Your task to perform on an android device: Go to Google maps Image 0: 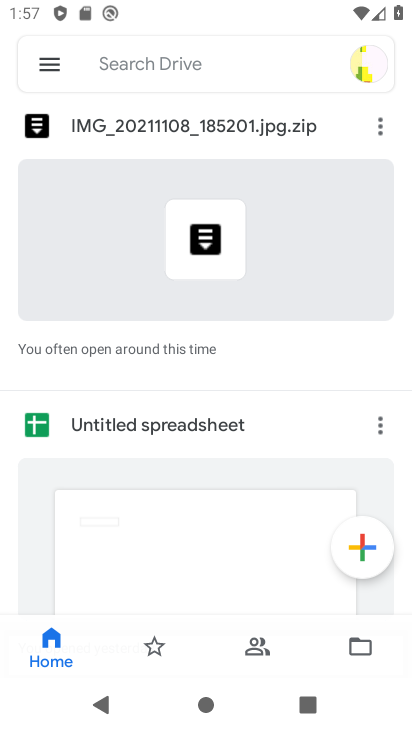
Step 0: press home button
Your task to perform on an android device: Go to Google maps Image 1: 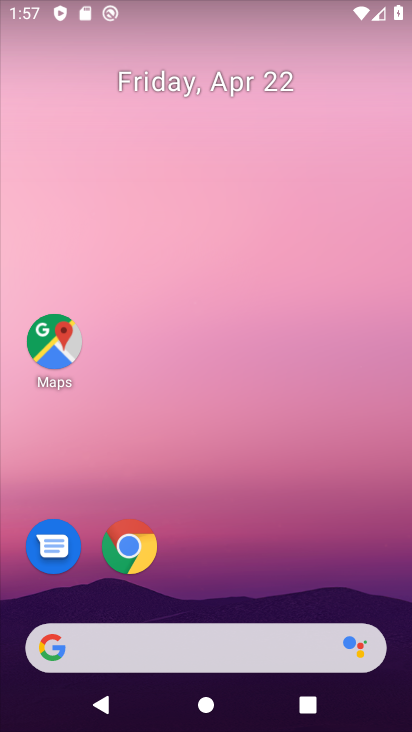
Step 1: click (58, 345)
Your task to perform on an android device: Go to Google maps Image 2: 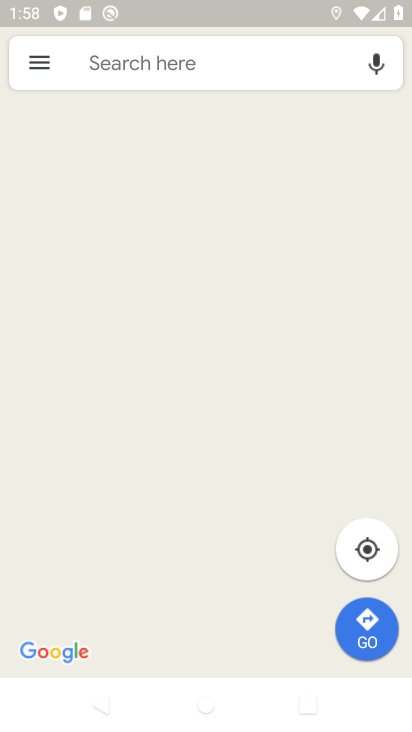
Step 2: task complete